Your task to perform on an android device: turn off location Image 0: 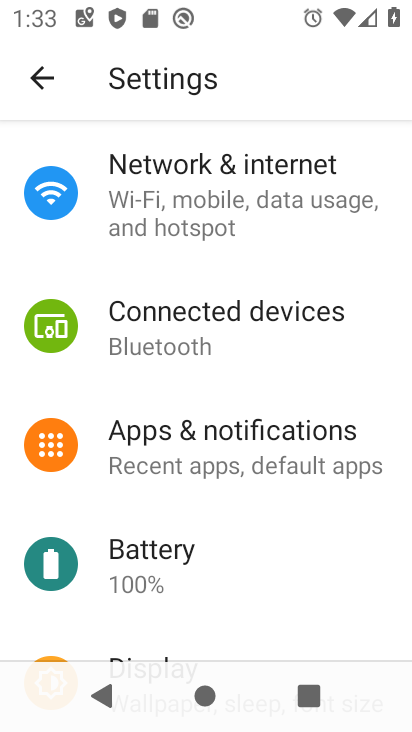
Step 0: drag from (145, 584) to (231, 133)
Your task to perform on an android device: turn off location Image 1: 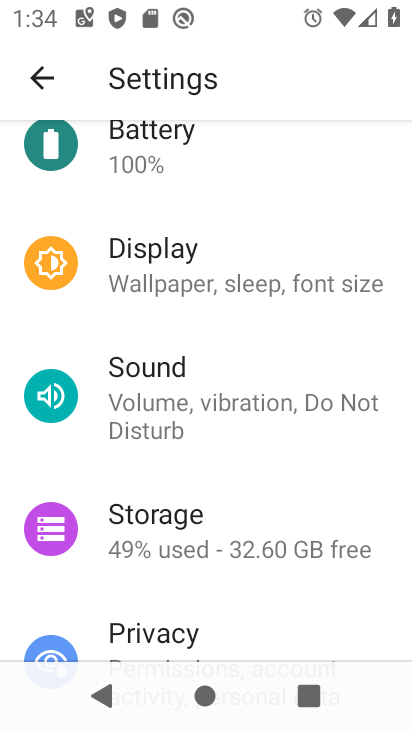
Step 1: drag from (187, 568) to (275, 138)
Your task to perform on an android device: turn off location Image 2: 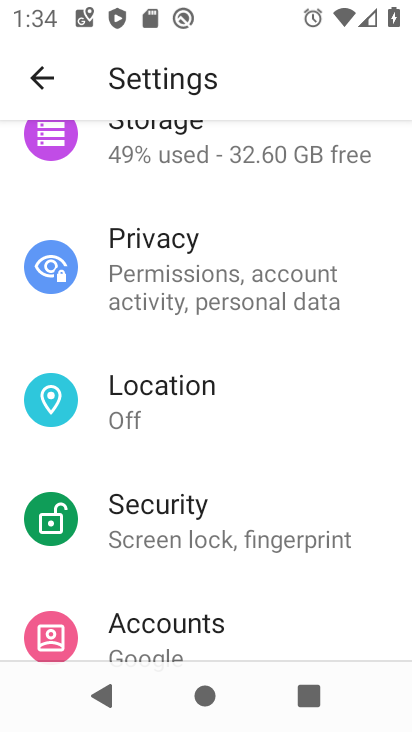
Step 2: click (192, 406)
Your task to perform on an android device: turn off location Image 3: 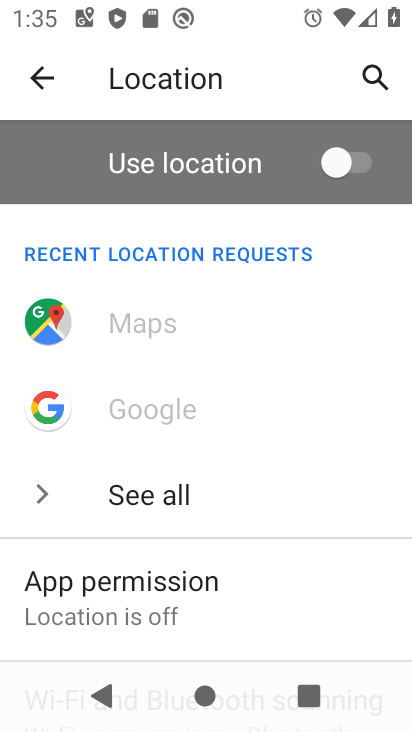
Step 3: task complete